Your task to perform on an android device: Go to CNN.com Image 0: 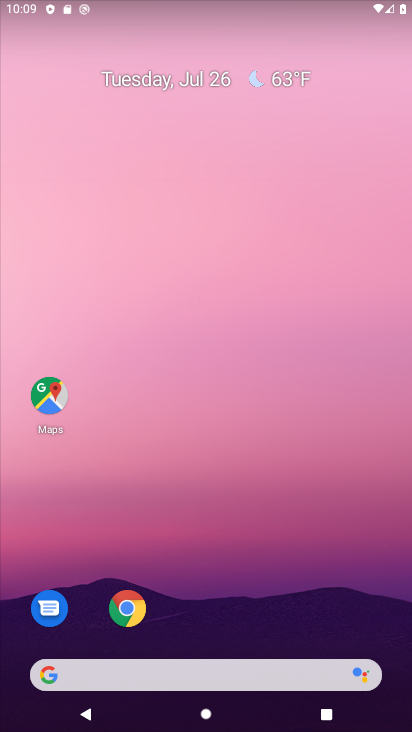
Step 0: press home button
Your task to perform on an android device: Go to CNN.com Image 1: 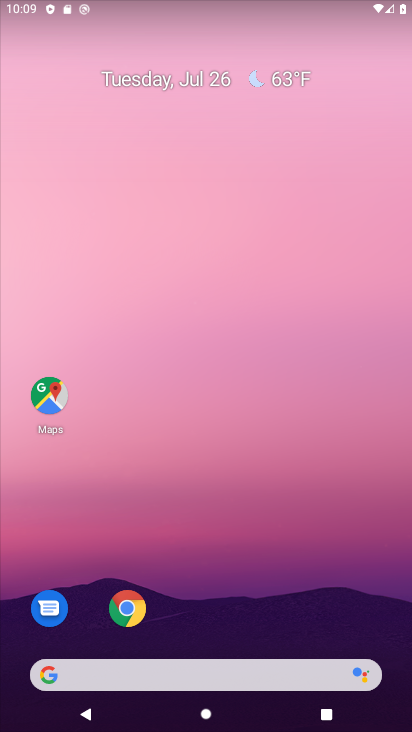
Step 1: press home button
Your task to perform on an android device: Go to CNN.com Image 2: 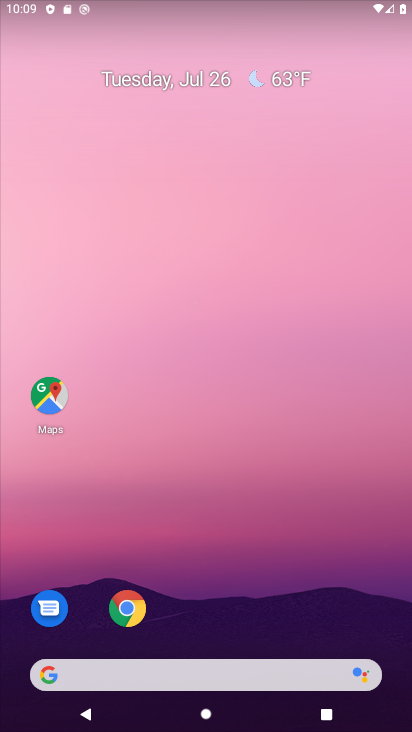
Step 2: click (105, 680)
Your task to perform on an android device: Go to CNN.com Image 3: 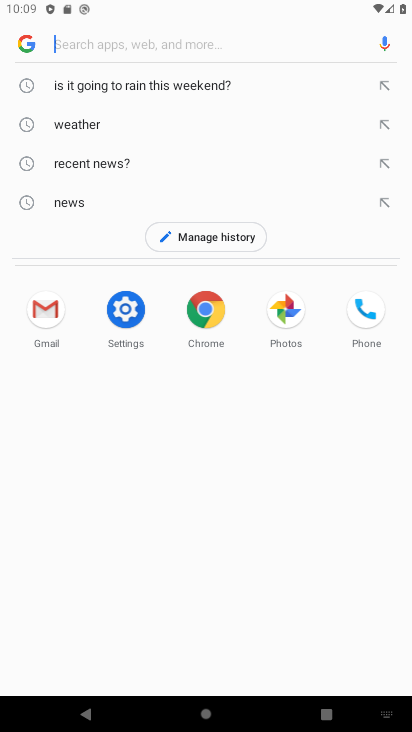
Step 3: type "CNN.com"
Your task to perform on an android device: Go to CNN.com Image 4: 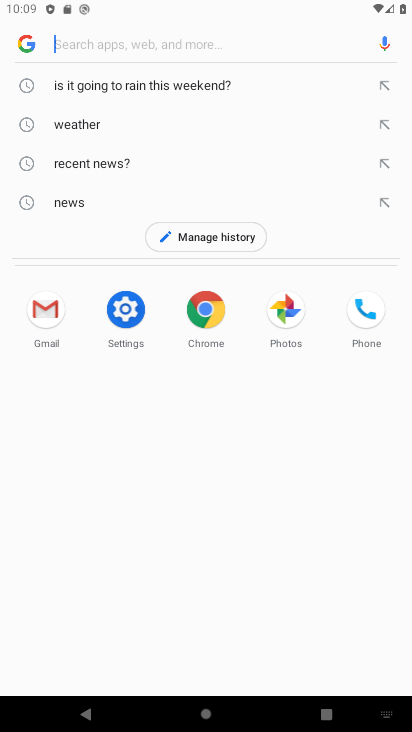
Step 4: click (78, 46)
Your task to perform on an android device: Go to CNN.com Image 5: 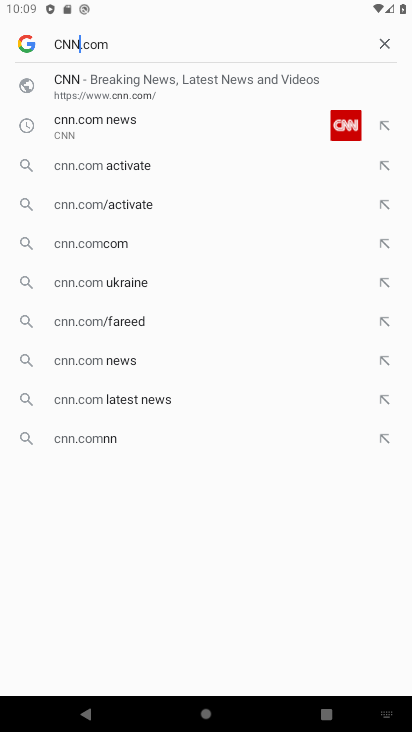
Step 5: click (107, 75)
Your task to perform on an android device: Go to CNN.com Image 6: 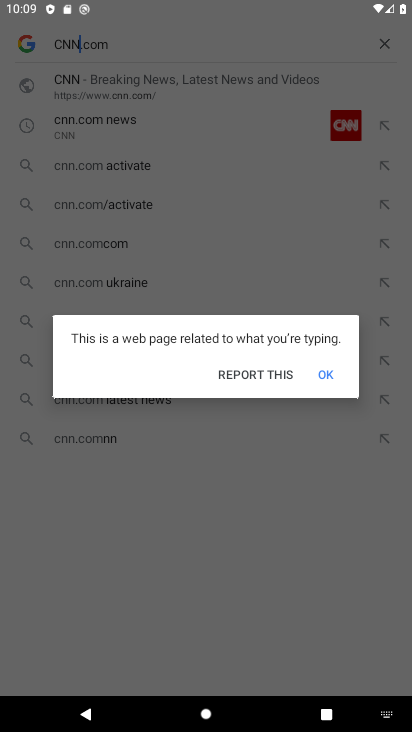
Step 6: click (321, 372)
Your task to perform on an android device: Go to CNN.com Image 7: 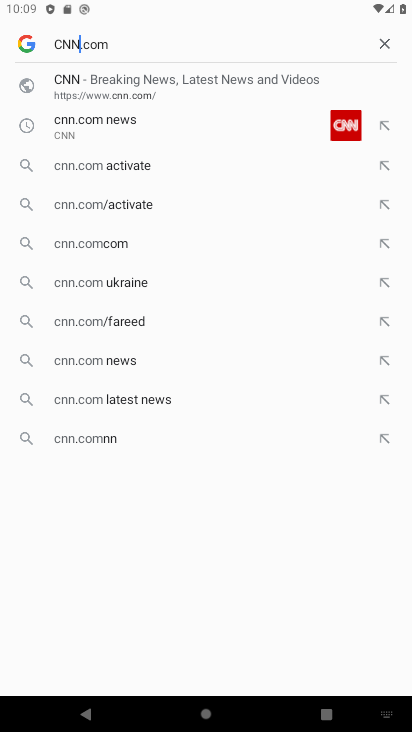
Step 7: click (155, 86)
Your task to perform on an android device: Go to CNN.com Image 8: 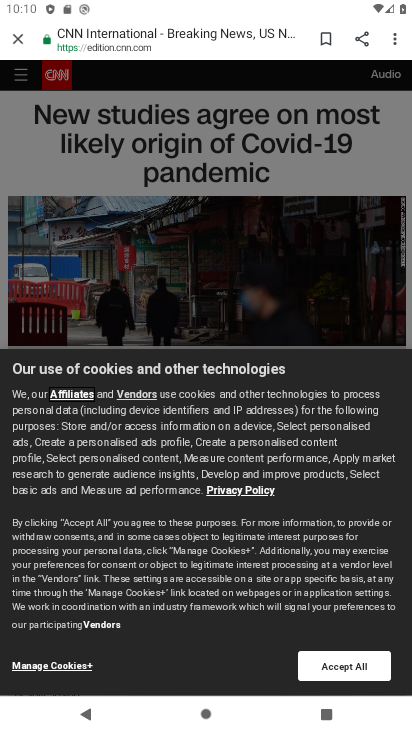
Step 8: click (361, 665)
Your task to perform on an android device: Go to CNN.com Image 9: 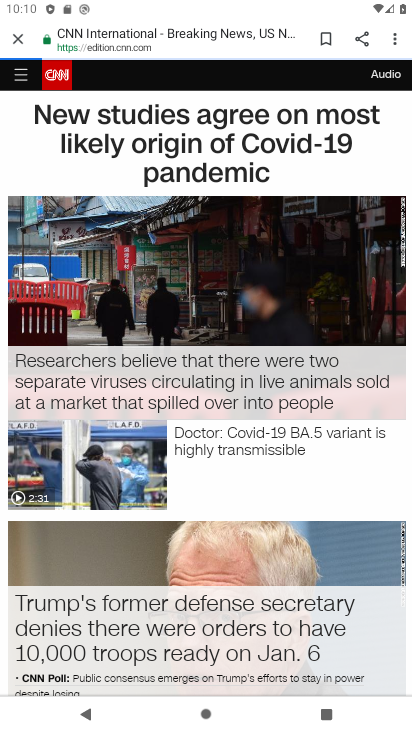
Step 9: task complete